Your task to perform on an android device: turn off data saver in the chrome app Image 0: 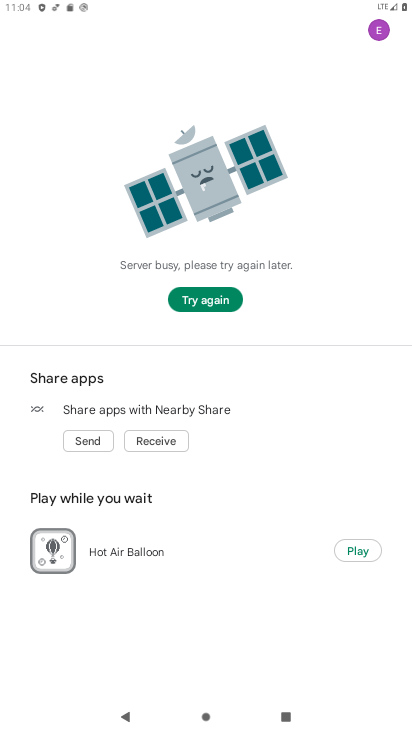
Step 0: press home button
Your task to perform on an android device: turn off data saver in the chrome app Image 1: 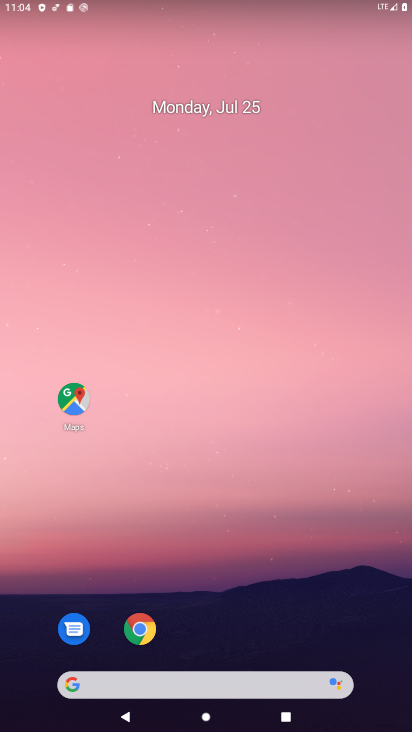
Step 1: click (139, 635)
Your task to perform on an android device: turn off data saver in the chrome app Image 2: 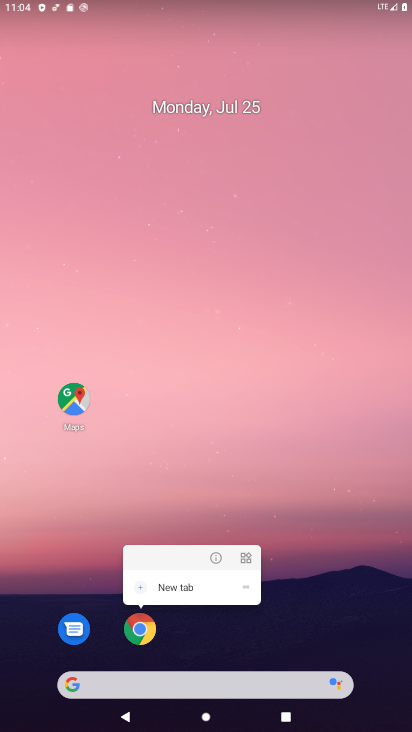
Step 2: click (139, 635)
Your task to perform on an android device: turn off data saver in the chrome app Image 3: 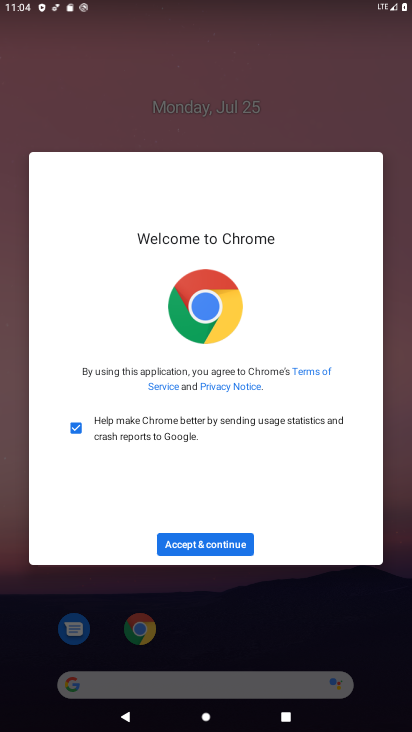
Step 3: click (196, 537)
Your task to perform on an android device: turn off data saver in the chrome app Image 4: 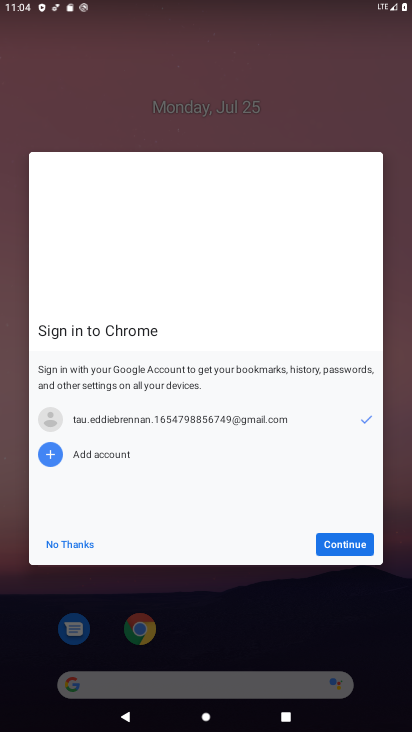
Step 4: click (355, 535)
Your task to perform on an android device: turn off data saver in the chrome app Image 5: 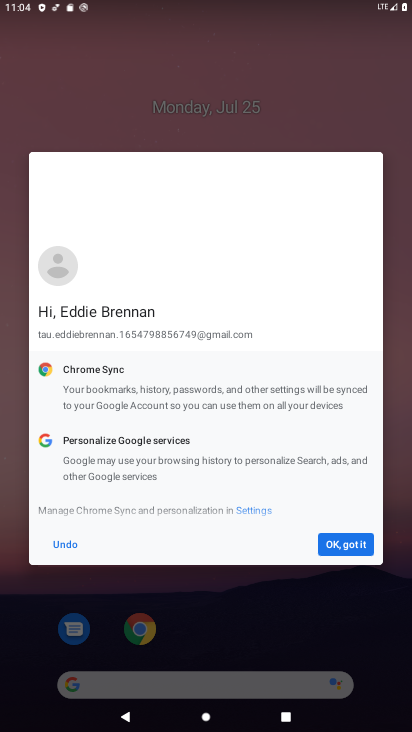
Step 5: click (346, 544)
Your task to perform on an android device: turn off data saver in the chrome app Image 6: 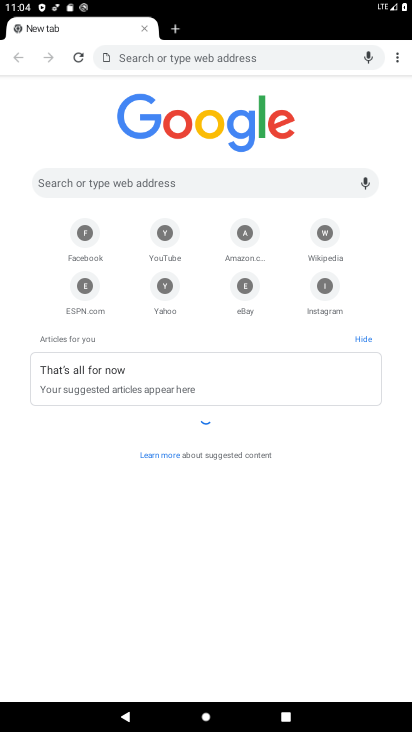
Step 6: drag from (399, 51) to (297, 267)
Your task to perform on an android device: turn off data saver in the chrome app Image 7: 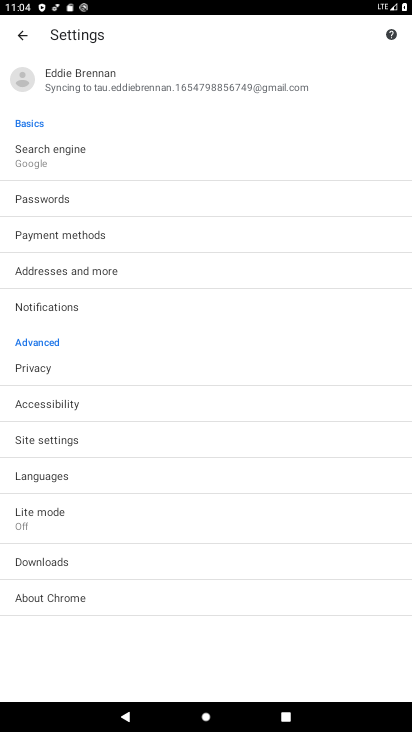
Step 7: click (76, 521)
Your task to perform on an android device: turn off data saver in the chrome app Image 8: 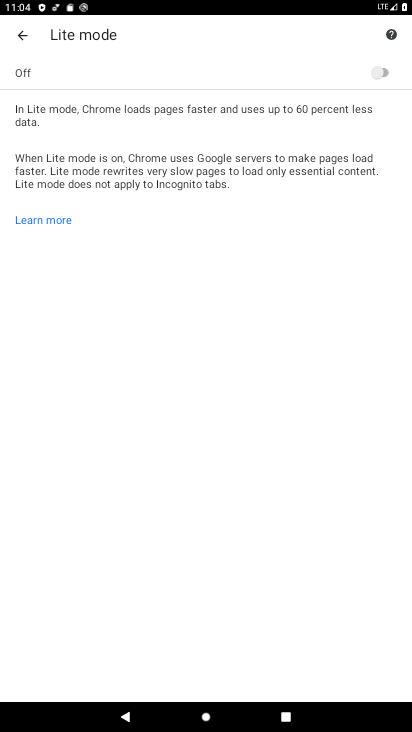
Step 8: task complete